Your task to perform on an android device: Do I have any events today? Image 0: 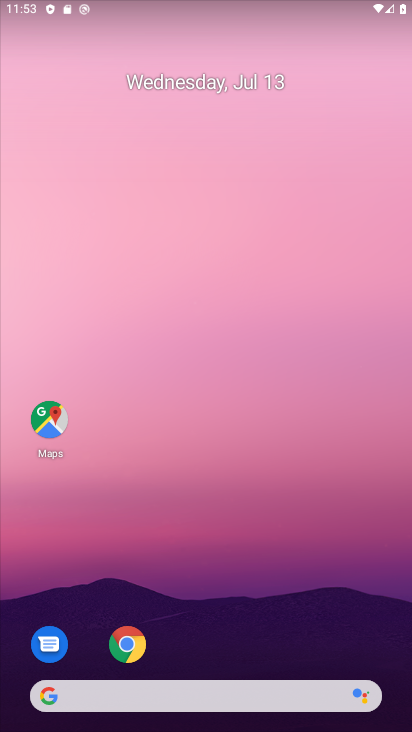
Step 0: drag from (207, 667) to (203, 8)
Your task to perform on an android device: Do I have any events today? Image 1: 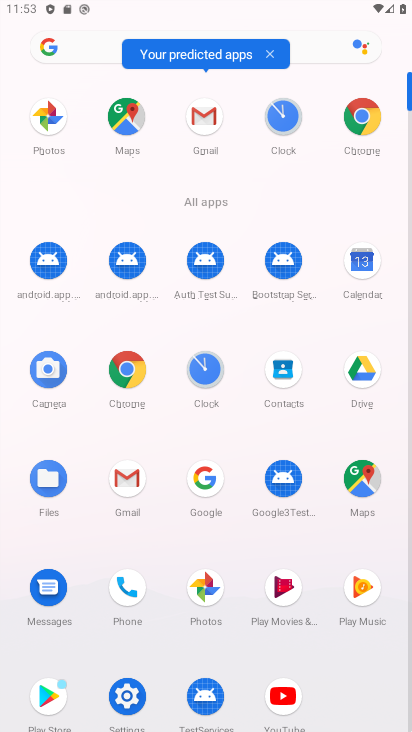
Step 1: click (361, 281)
Your task to perform on an android device: Do I have any events today? Image 2: 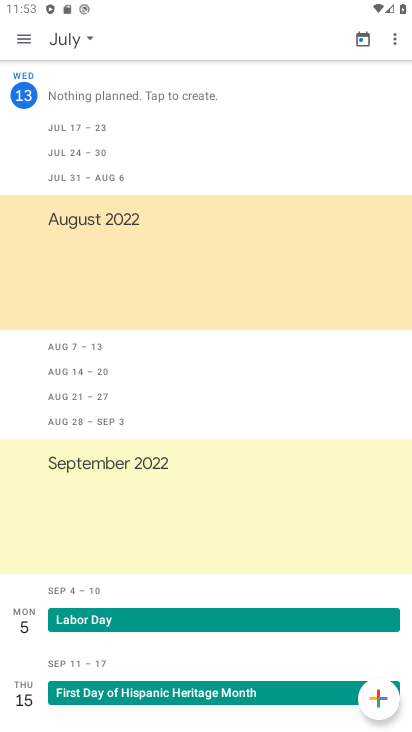
Step 2: click (25, 90)
Your task to perform on an android device: Do I have any events today? Image 3: 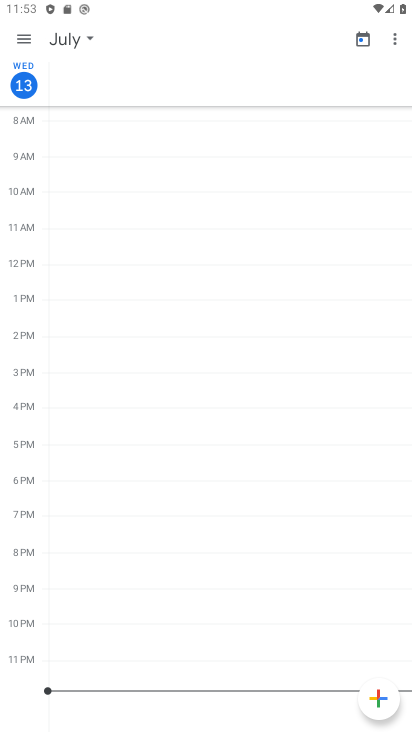
Step 3: task complete